Your task to perform on an android device: What's the weather today? Image 0: 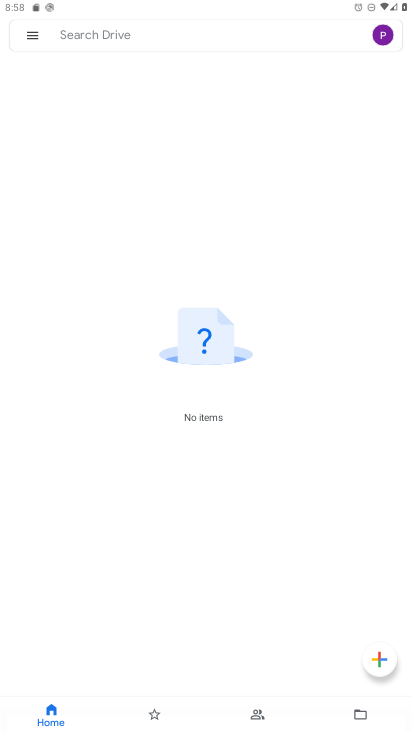
Step 0: press home button
Your task to perform on an android device: What's the weather today? Image 1: 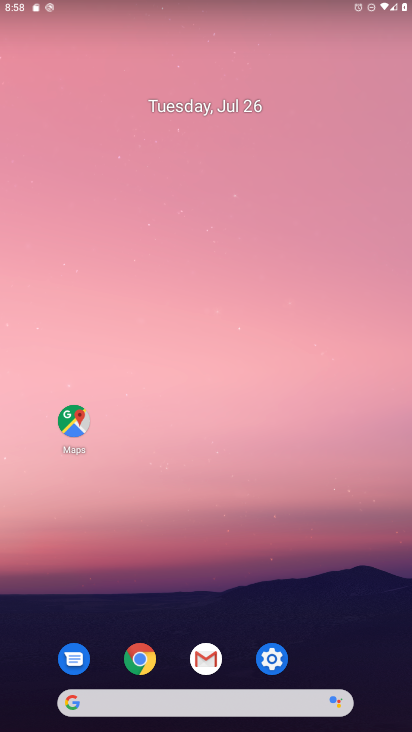
Step 1: click (156, 694)
Your task to perform on an android device: What's the weather today? Image 2: 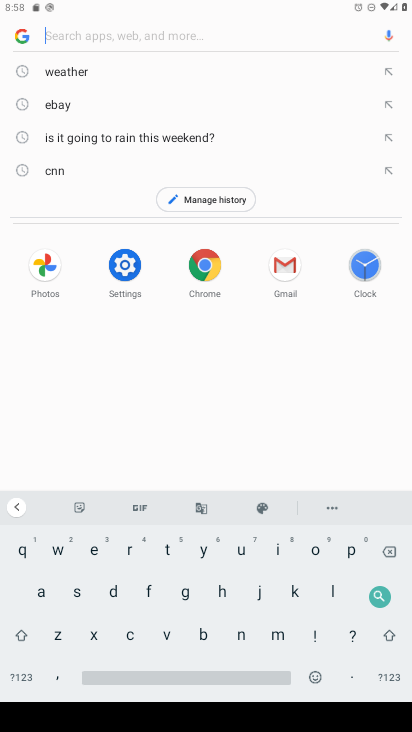
Step 2: click (101, 74)
Your task to perform on an android device: What's the weather today? Image 3: 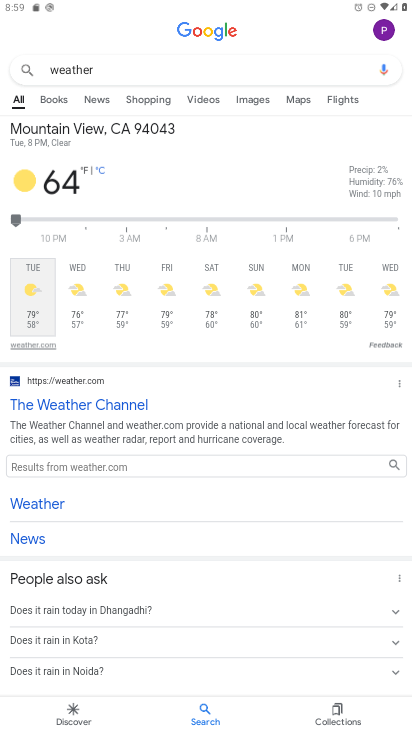
Step 3: task complete